Your task to perform on an android device: toggle priority inbox in the gmail app Image 0: 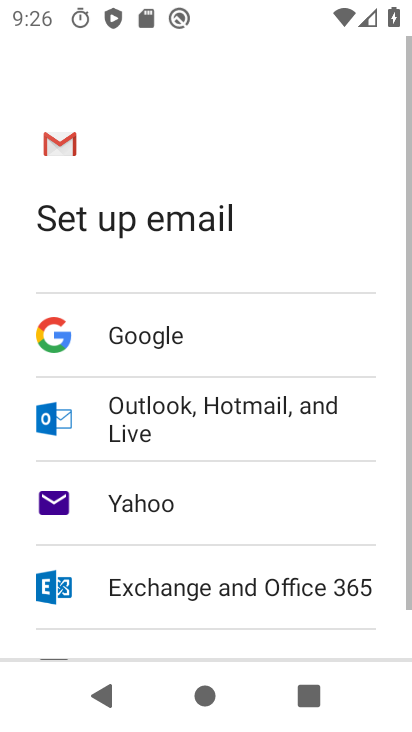
Step 0: press home button
Your task to perform on an android device: toggle priority inbox in the gmail app Image 1: 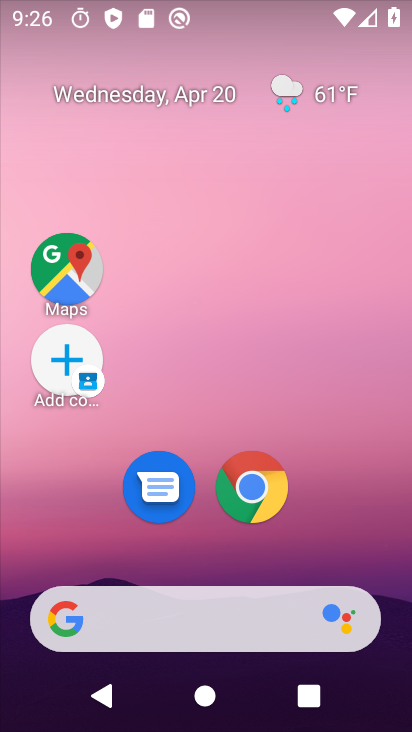
Step 1: drag from (317, 532) to (289, 206)
Your task to perform on an android device: toggle priority inbox in the gmail app Image 2: 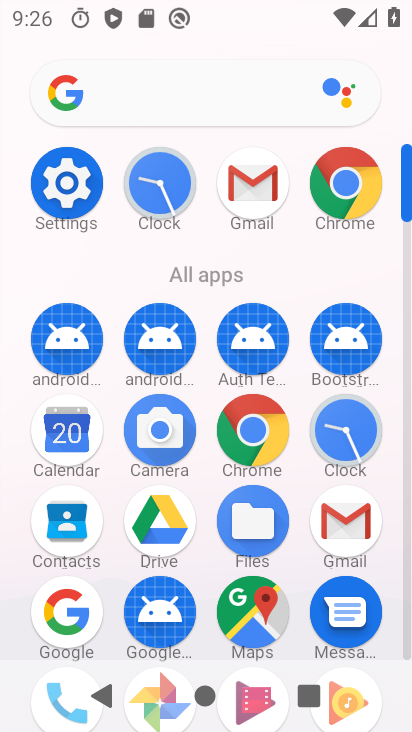
Step 2: click (329, 508)
Your task to perform on an android device: toggle priority inbox in the gmail app Image 3: 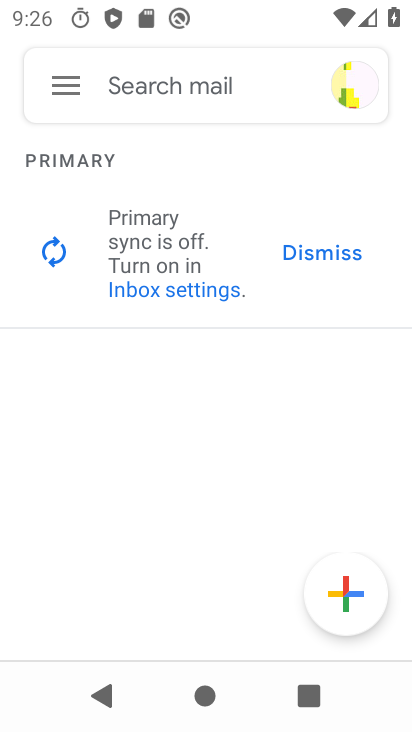
Step 3: click (67, 86)
Your task to perform on an android device: toggle priority inbox in the gmail app Image 4: 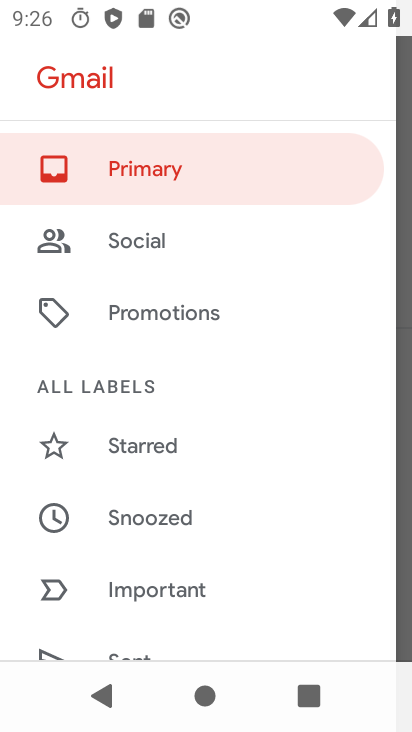
Step 4: drag from (100, 418) to (74, 318)
Your task to perform on an android device: toggle priority inbox in the gmail app Image 5: 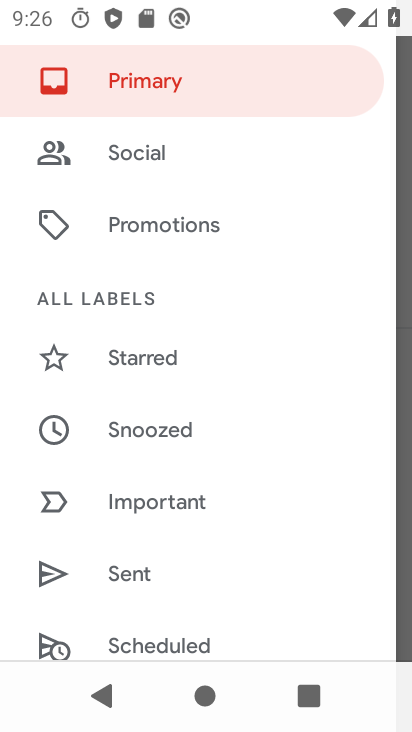
Step 5: drag from (159, 537) to (125, 439)
Your task to perform on an android device: toggle priority inbox in the gmail app Image 6: 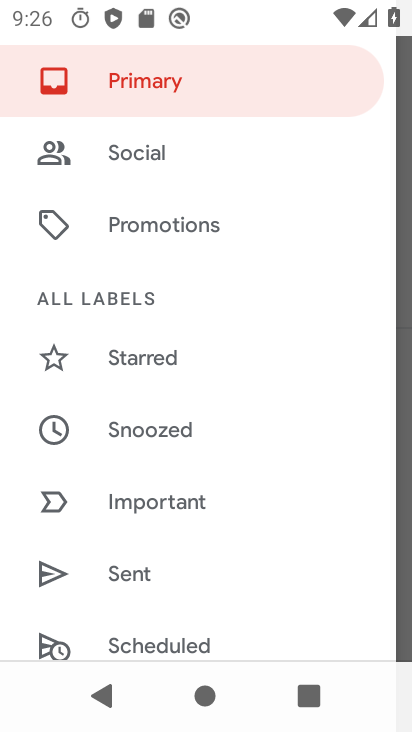
Step 6: drag from (110, 518) to (96, 428)
Your task to perform on an android device: toggle priority inbox in the gmail app Image 7: 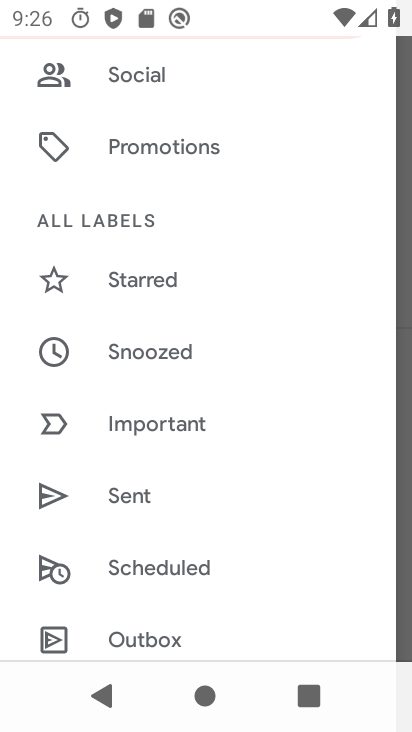
Step 7: drag from (111, 501) to (105, 422)
Your task to perform on an android device: toggle priority inbox in the gmail app Image 8: 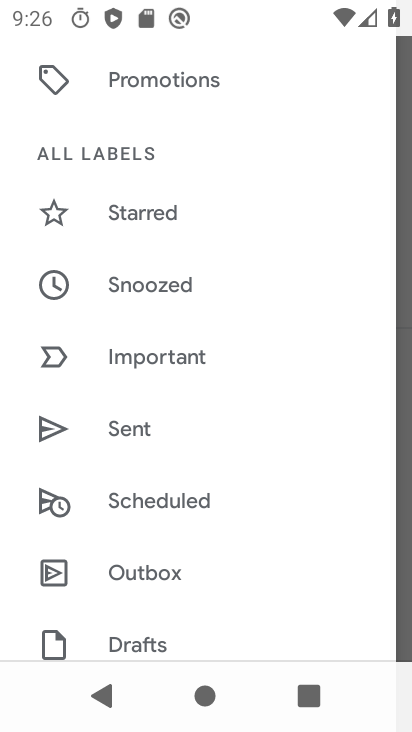
Step 8: drag from (120, 501) to (111, 438)
Your task to perform on an android device: toggle priority inbox in the gmail app Image 9: 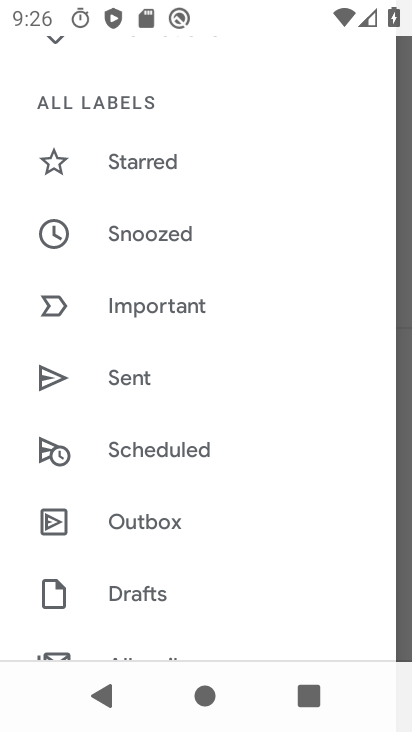
Step 9: drag from (102, 498) to (93, 428)
Your task to perform on an android device: toggle priority inbox in the gmail app Image 10: 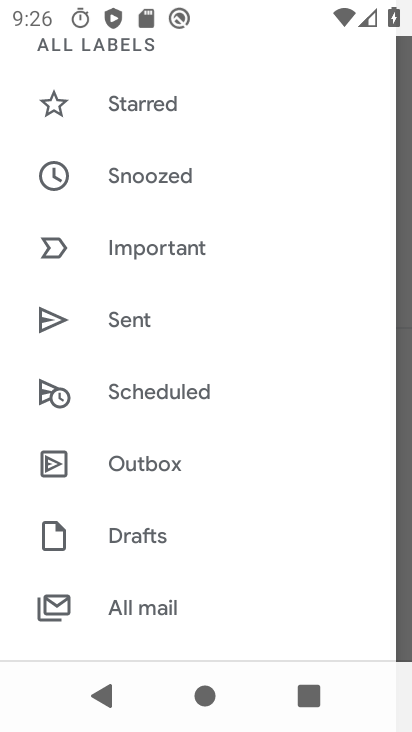
Step 10: drag from (102, 476) to (100, 399)
Your task to perform on an android device: toggle priority inbox in the gmail app Image 11: 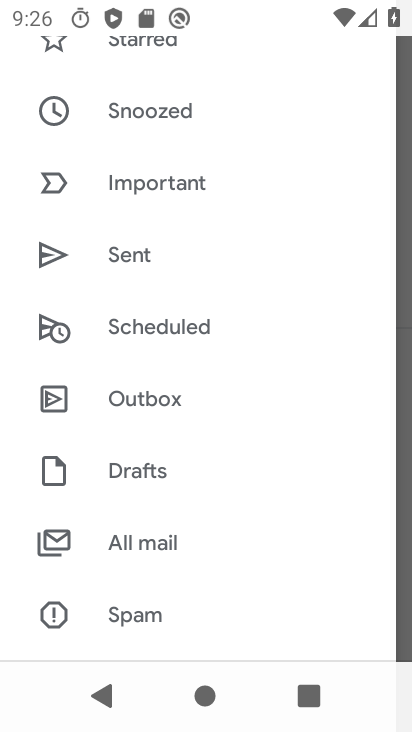
Step 11: drag from (116, 470) to (111, 405)
Your task to perform on an android device: toggle priority inbox in the gmail app Image 12: 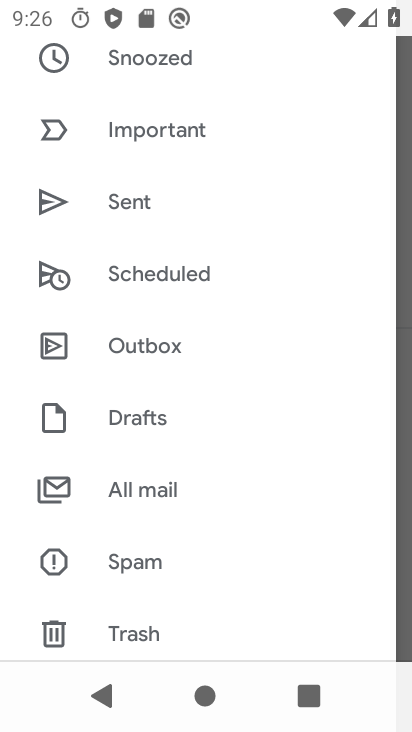
Step 12: drag from (108, 462) to (110, 397)
Your task to perform on an android device: toggle priority inbox in the gmail app Image 13: 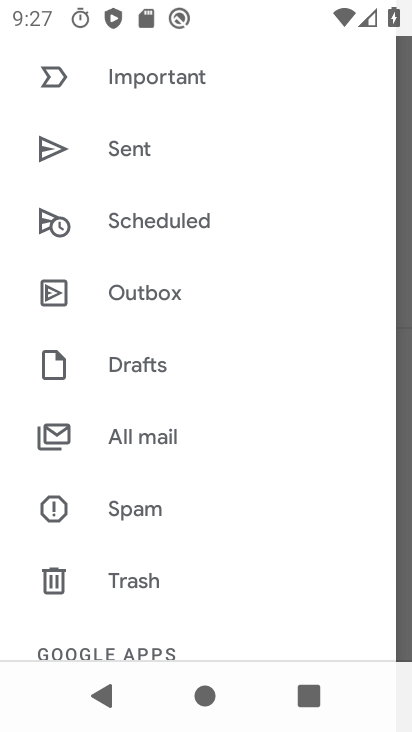
Step 13: drag from (123, 488) to (118, 408)
Your task to perform on an android device: toggle priority inbox in the gmail app Image 14: 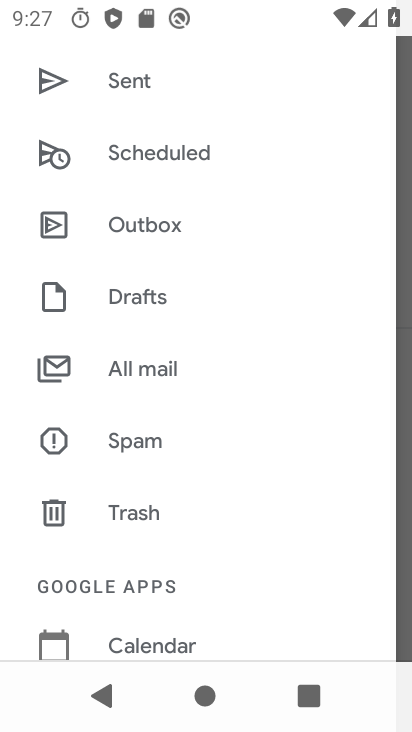
Step 14: drag from (116, 465) to (113, 395)
Your task to perform on an android device: toggle priority inbox in the gmail app Image 15: 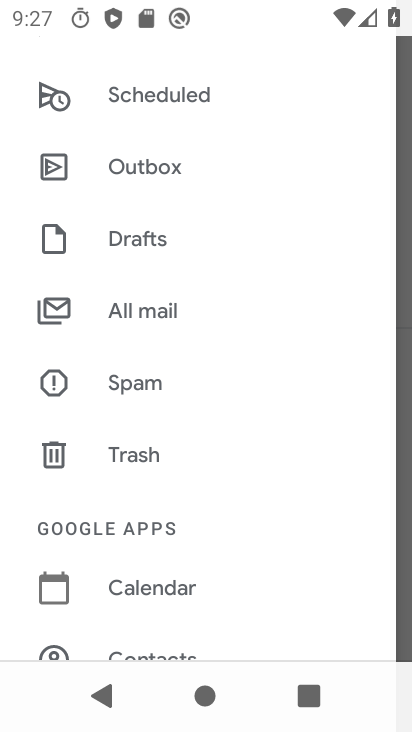
Step 15: drag from (116, 473) to (114, 401)
Your task to perform on an android device: toggle priority inbox in the gmail app Image 16: 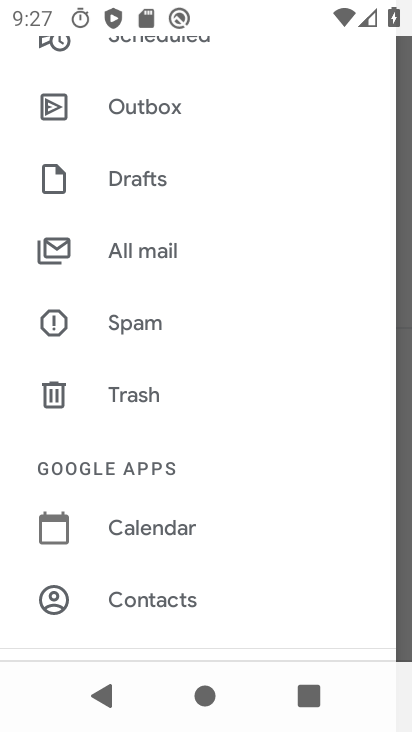
Step 16: drag from (129, 481) to (126, 431)
Your task to perform on an android device: toggle priority inbox in the gmail app Image 17: 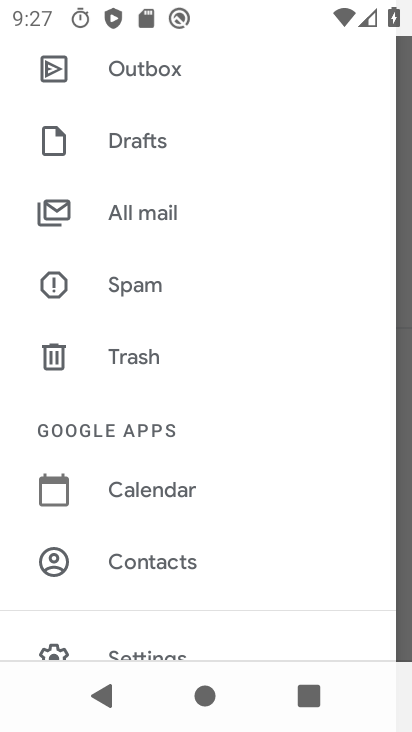
Step 17: drag from (132, 465) to (132, 414)
Your task to perform on an android device: toggle priority inbox in the gmail app Image 18: 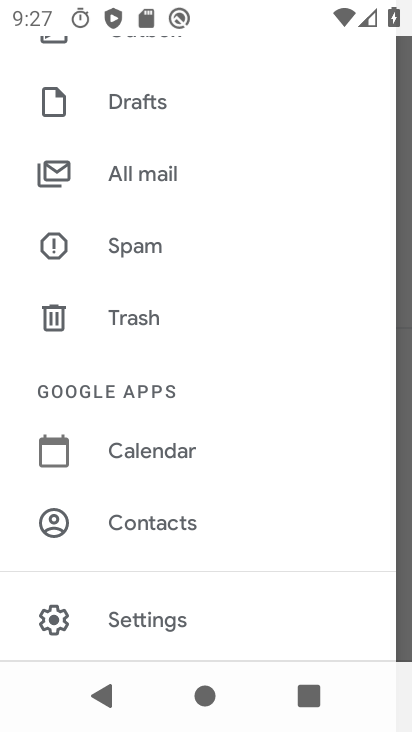
Step 18: click (164, 611)
Your task to perform on an android device: toggle priority inbox in the gmail app Image 19: 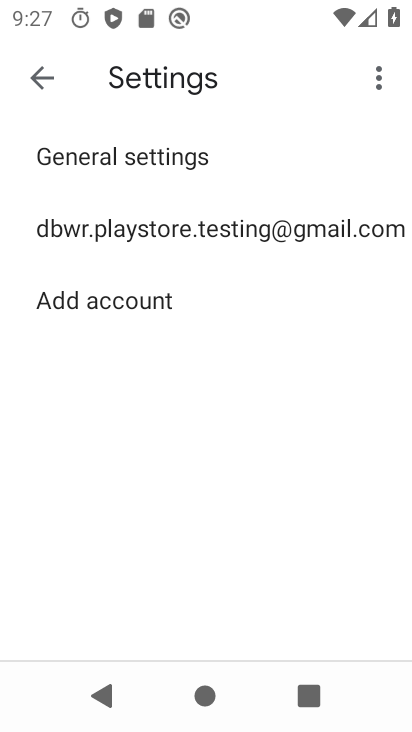
Step 19: click (126, 228)
Your task to perform on an android device: toggle priority inbox in the gmail app Image 20: 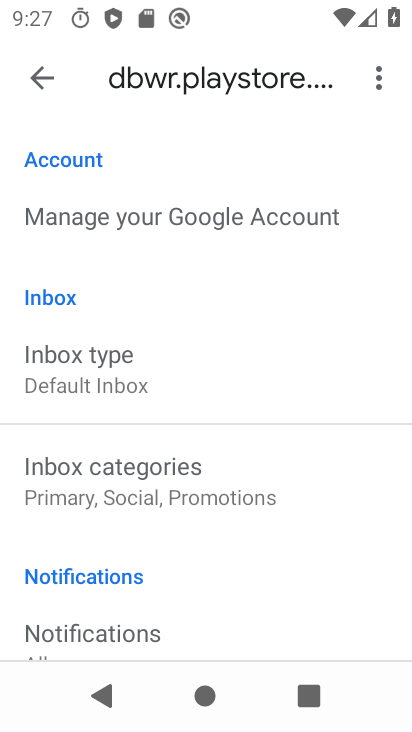
Step 20: click (109, 384)
Your task to perform on an android device: toggle priority inbox in the gmail app Image 21: 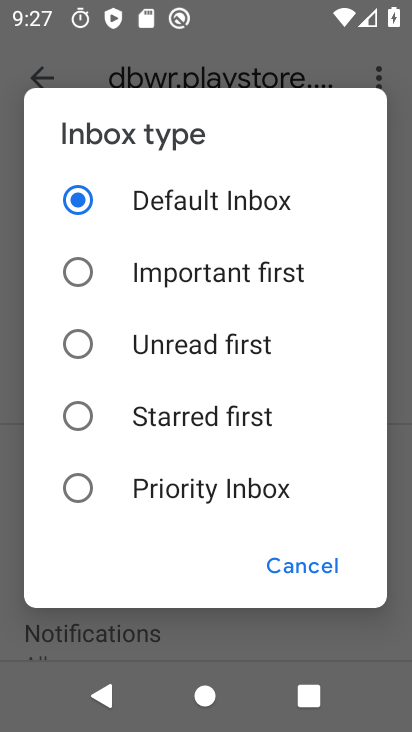
Step 21: click (148, 485)
Your task to perform on an android device: toggle priority inbox in the gmail app Image 22: 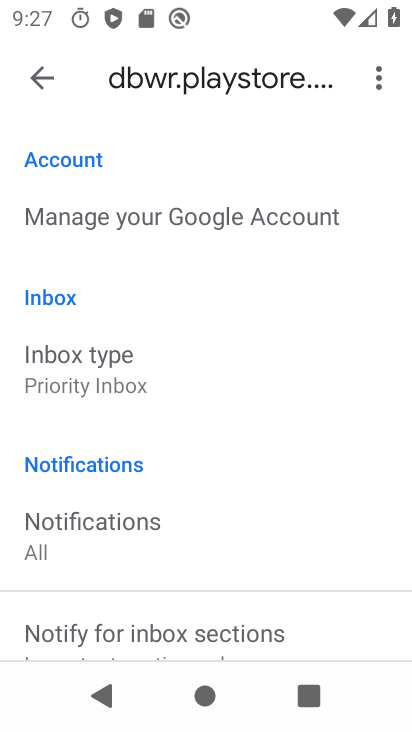
Step 22: task complete